Your task to perform on an android device: turn off notifications settings in the gmail app Image 0: 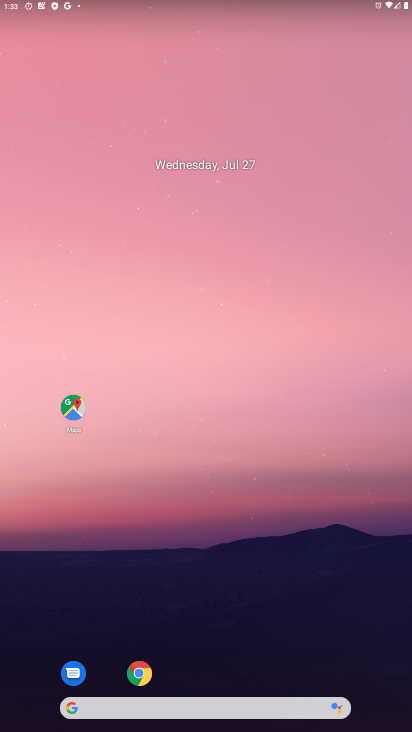
Step 0: drag from (258, 675) to (238, 30)
Your task to perform on an android device: turn off notifications settings in the gmail app Image 1: 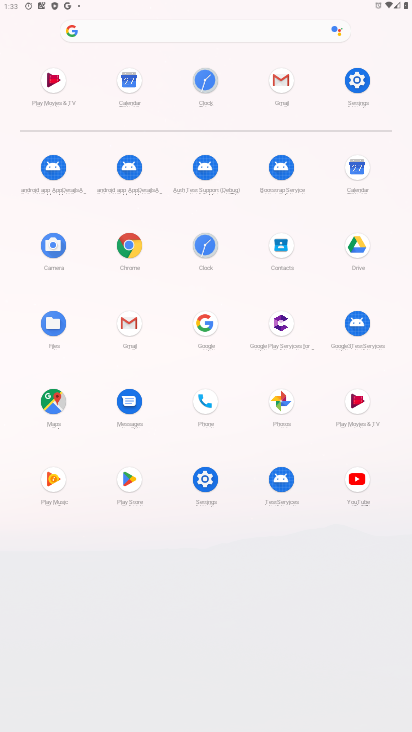
Step 1: click (273, 76)
Your task to perform on an android device: turn off notifications settings in the gmail app Image 2: 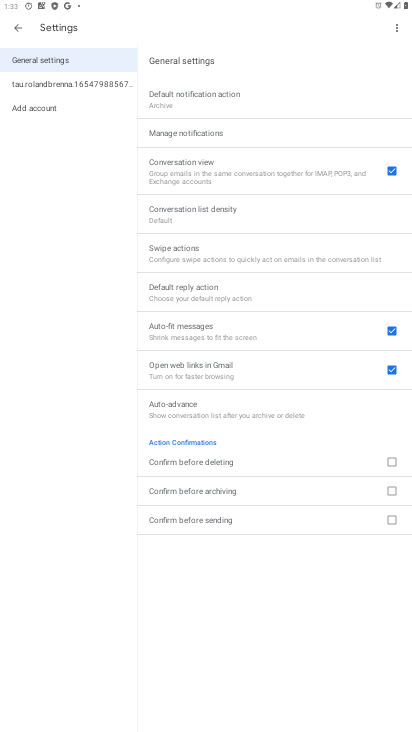
Step 2: click (211, 135)
Your task to perform on an android device: turn off notifications settings in the gmail app Image 3: 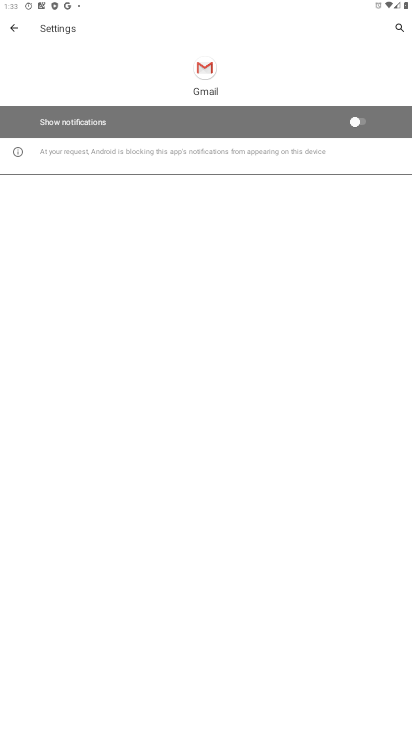
Step 3: task complete